Your task to perform on an android device: toggle javascript in the chrome app Image 0: 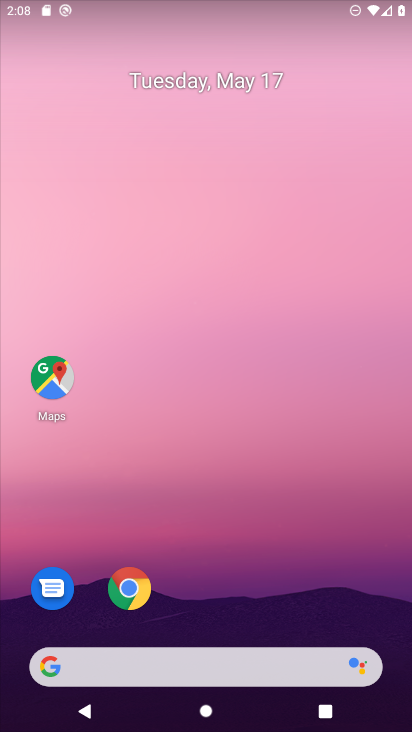
Step 0: click (142, 592)
Your task to perform on an android device: toggle javascript in the chrome app Image 1: 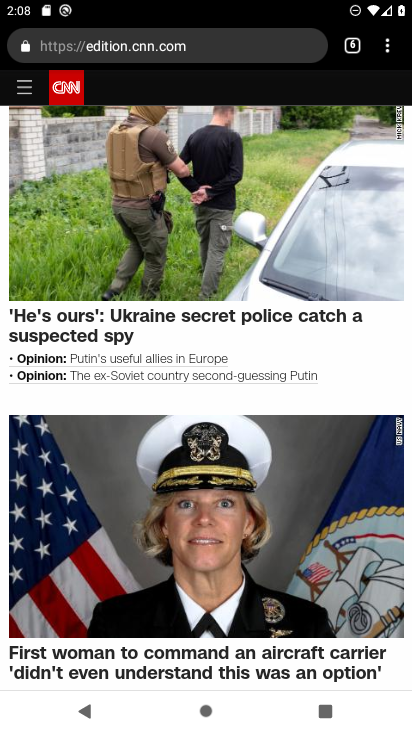
Step 1: click (387, 50)
Your task to perform on an android device: toggle javascript in the chrome app Image 2: 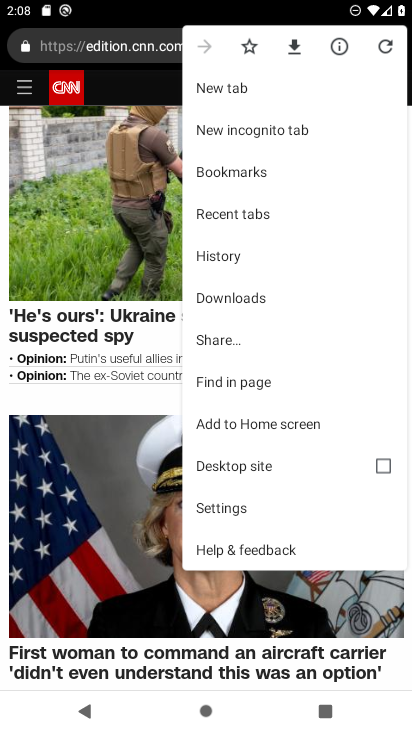
Step 2: click (230, 507)
Your task to perform on an android device: toggle javascript in the chrome app Image 3: 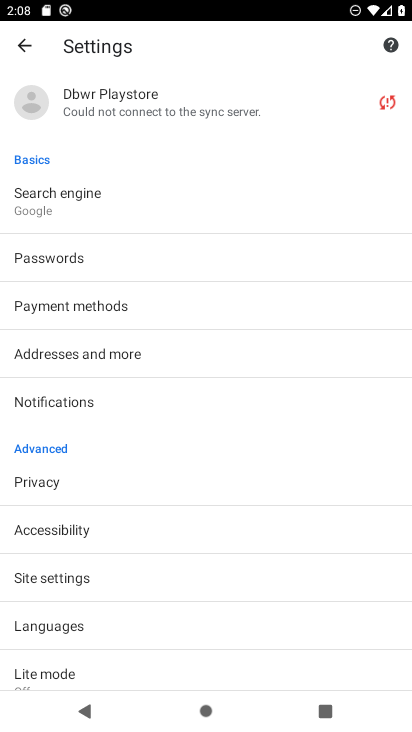
Step 3: click (58, 576)
Your task to perform on an android device: toggle javascript in the chrome app Image 4: 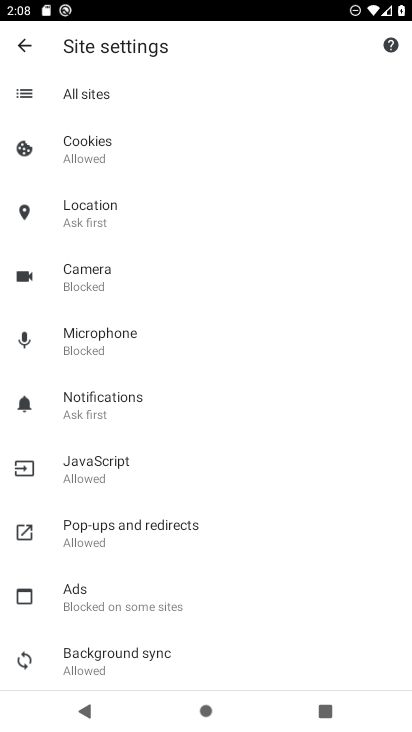
Step 4: click (134, 473)
Your task to perform on an android device: toggle javascript in the chrome app Image 5: 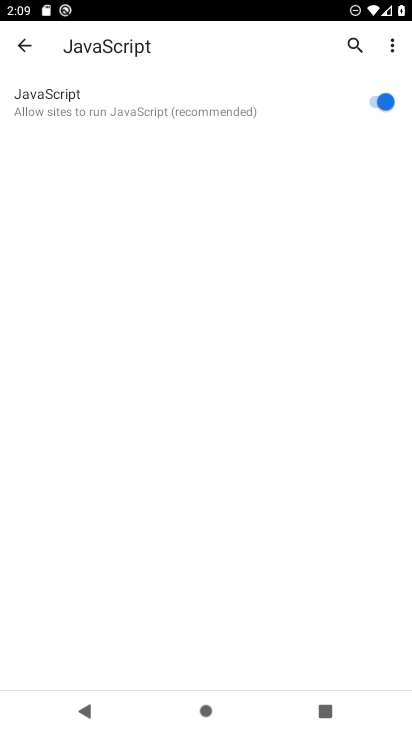
Step 5: task complete